Your task to perform on an android device: Open wifi settings Image 0: 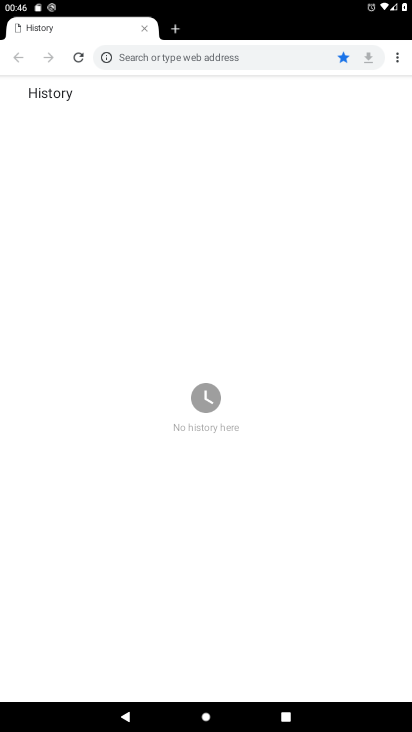
Step 0: press home button
Your task to perform on an android device: Open wifi settings Image 1: 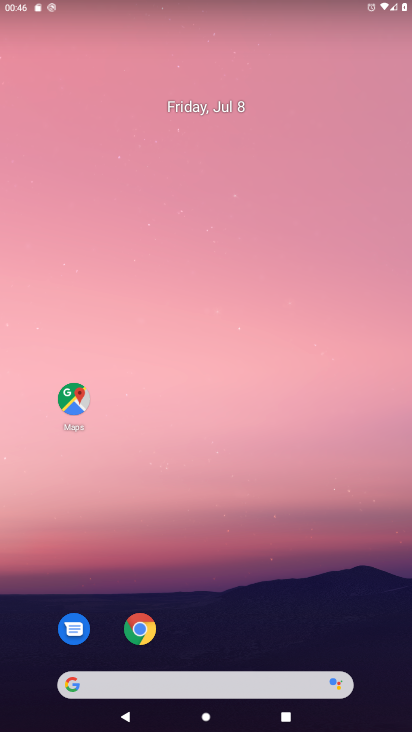
Step 1: drag from (334, 621) to (323, 175)
Your task to perform on an android device: Open wifi settings Image 2: 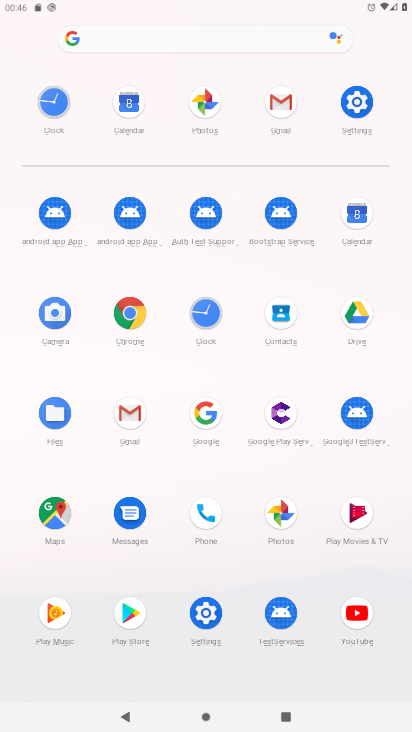
Step 2: click (360, 114)
Your task to perform on an android device: Open wifi settings Image 3: 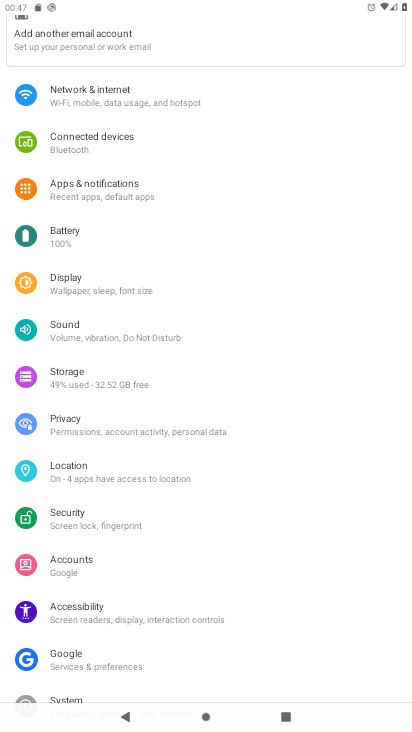
Step 3: click (146, 97)
Your task to perform on an android device: Open wifi settings Image 4: 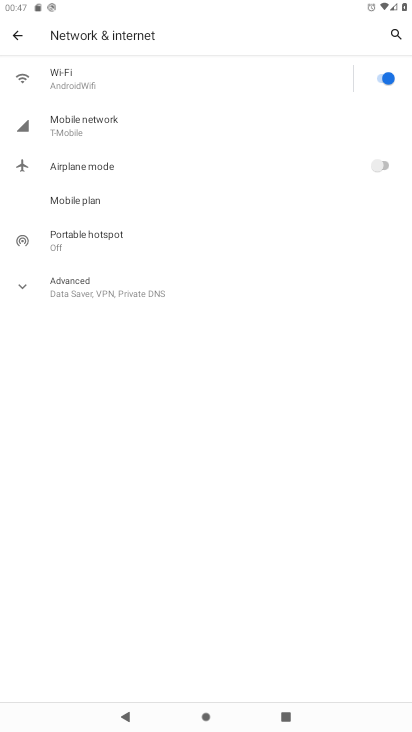
Step 4: click (148, 80)
Your task to perform on an android device: Open wifi settings Image 5: 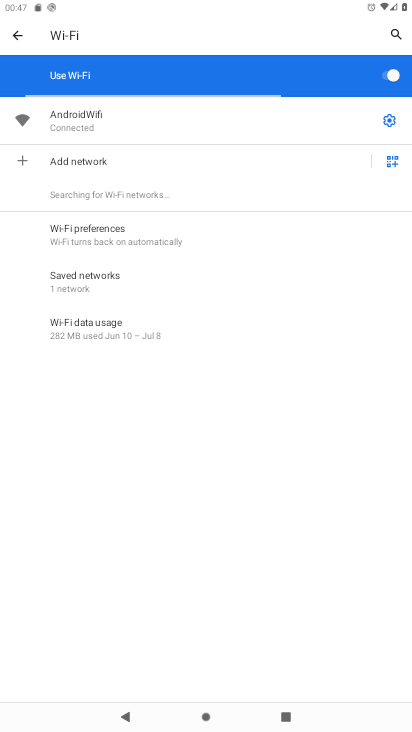
Step 5: task complete